Your task to perform on an android device: turn off picture-in-picture Image 0: 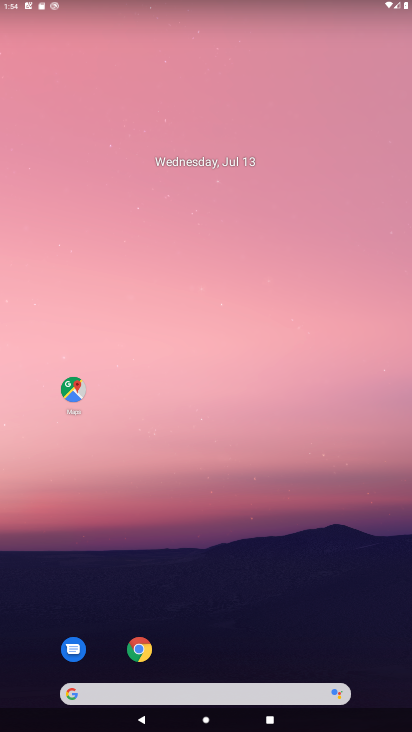
Step 0: drag from (253, 663) to (237, 13)
Your task to perform on an android device: turn off picture-in-picture Image 1: 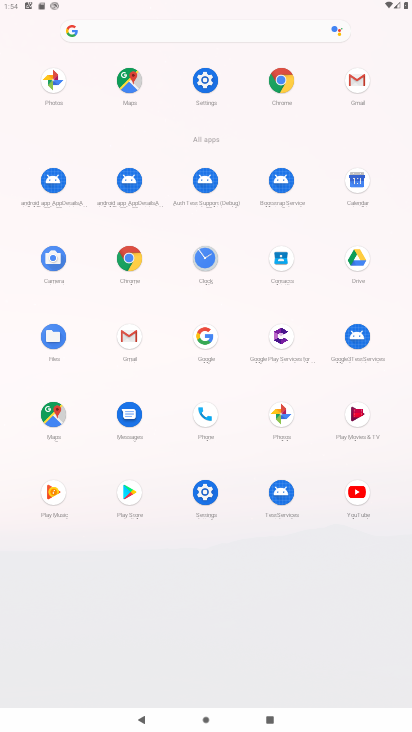
Step 1: click (149, 272)
Your task to perform on an android device: turn off picture-in-picture Image 2: 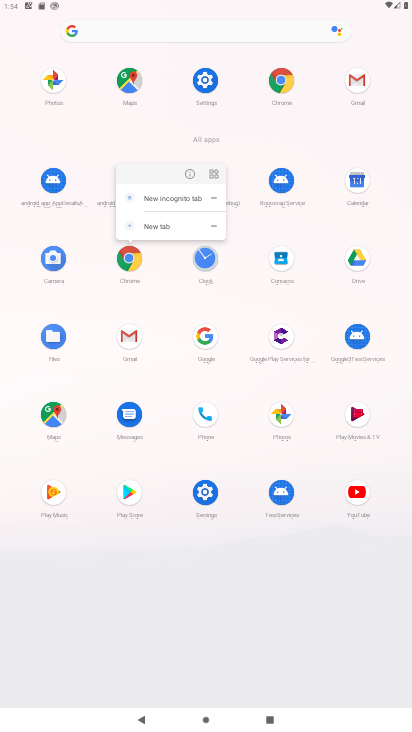
Step 2: click (185, 173)
Your task to perform on an android device: turn off picture-in-picture Image 3: 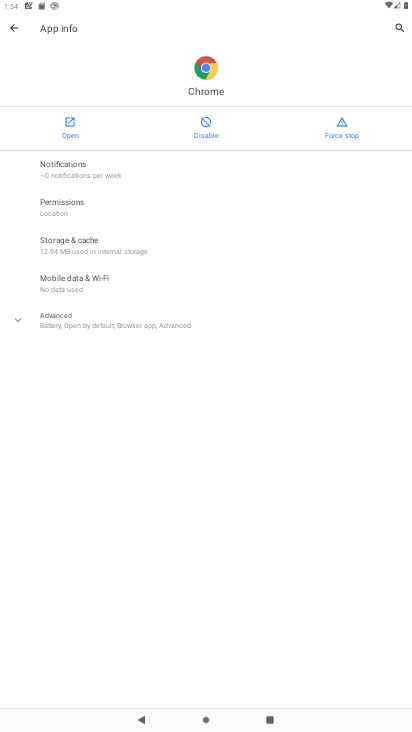
Step 3: click (80, 324)
Your task to perform on an android device: turn off picture-in-picture Image 4: 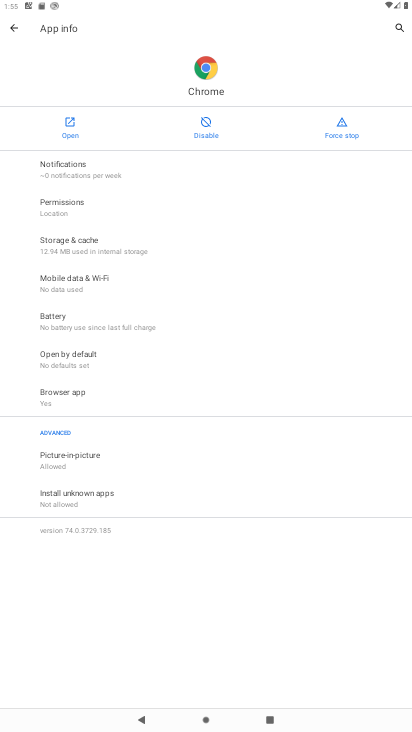
Step 4: click (102, 453)
Your task to perform on an android device: turn off picture-in-picture Image 5: 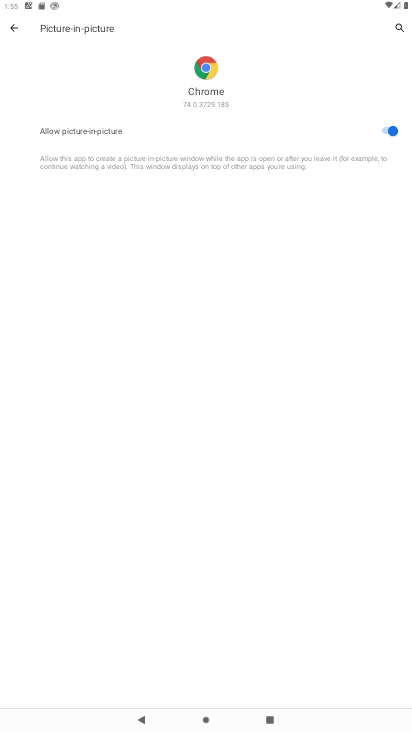
Step 5: click (132, 132)
Your task to perform on an android device: turn off picture-in-picture Image 6: 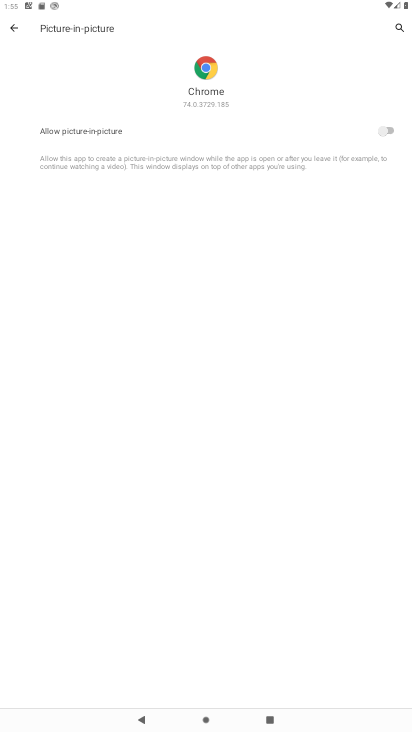
Step 6: task complete